Your task to perform on an android device: Show me productivity apps on the Play Store Image 0: 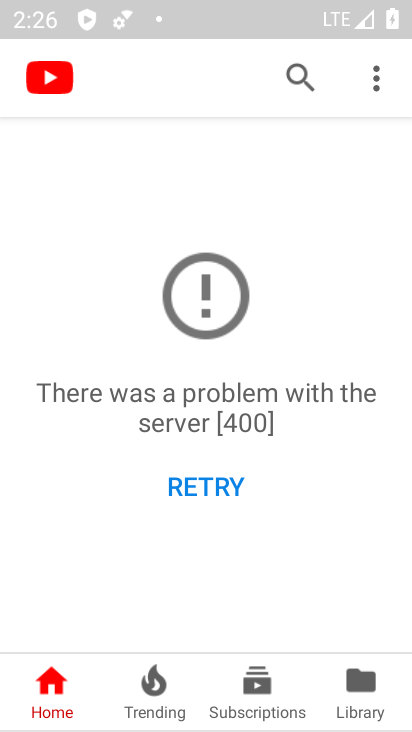
Step 0: press home button
Your task to perform on an android device: Show me productivity apps on the Play Store Image 1: 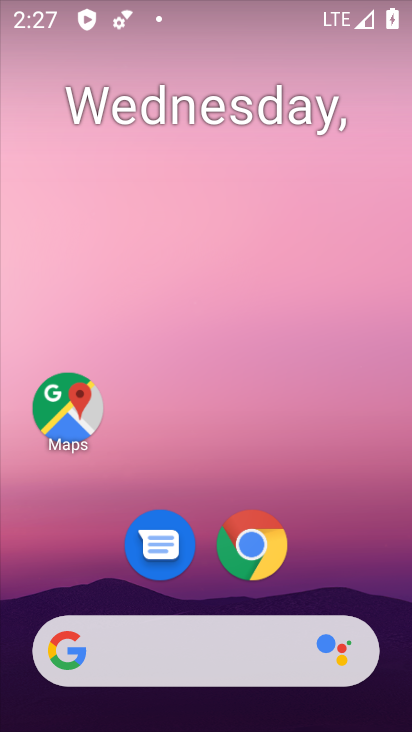
Step 1: drag from (198, 592) to (203, 180)
Your task to perform on an android device: Show me productivity apps on the Play Store Image 2: 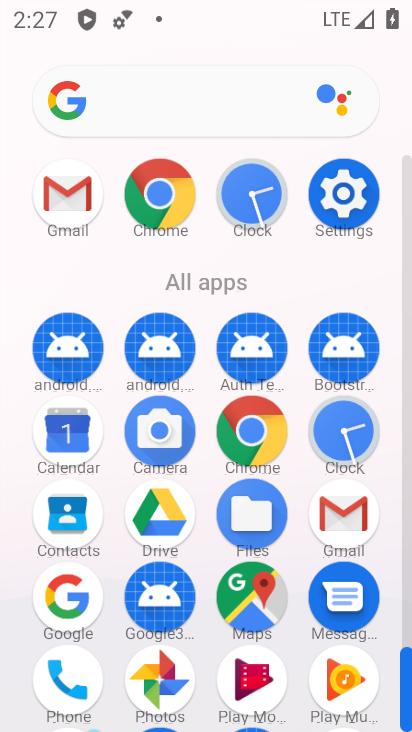
Step 2: drag from (199, 577) to (193, 326)
Your task to perform on an android device: Show me productivity apps on the Play Store Image 3: 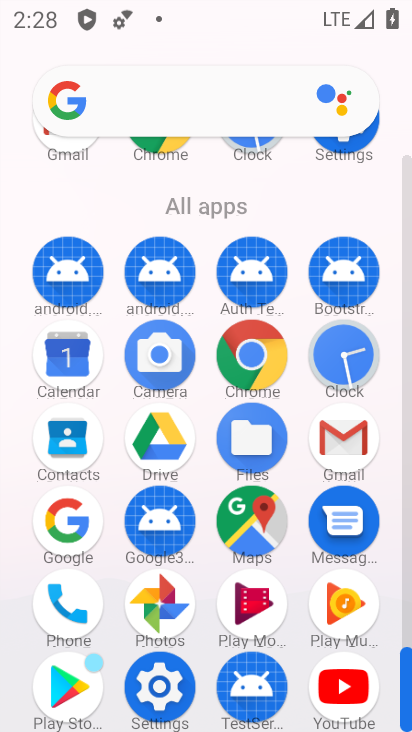
Step 3: drag from (108, 631) to (128, 424)
Your task to perform on an android device: Show me productivity apps on the Play Store Image 4: 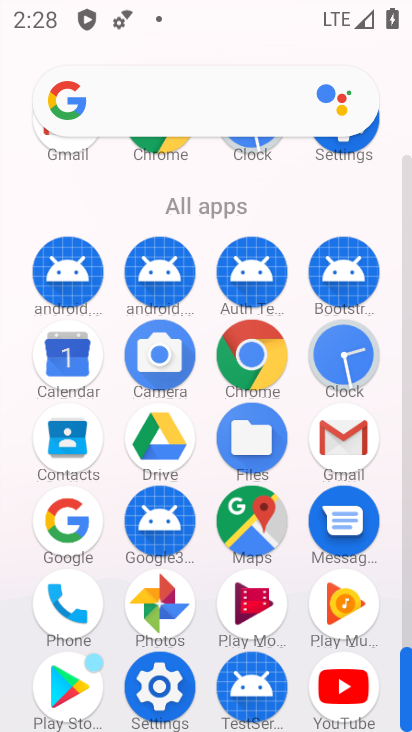
Step 4: click (68, 665)
Your task to perform on an android device: Show me productivity apps on the Play Store Image 5: 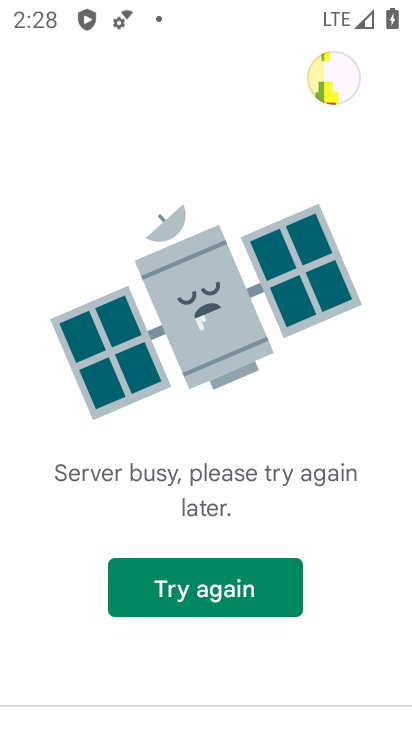
Step 5: task complete